Your task to perform on an android device: Check the weather Image 0: 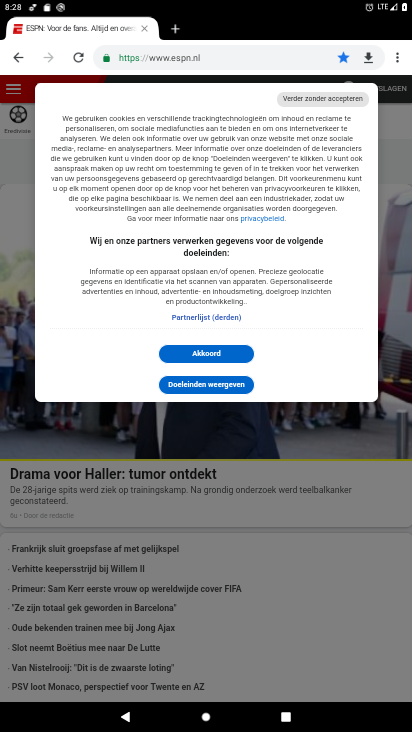
Step 0: press home button
Your task to perform on an android device: Check the weather Image 1: 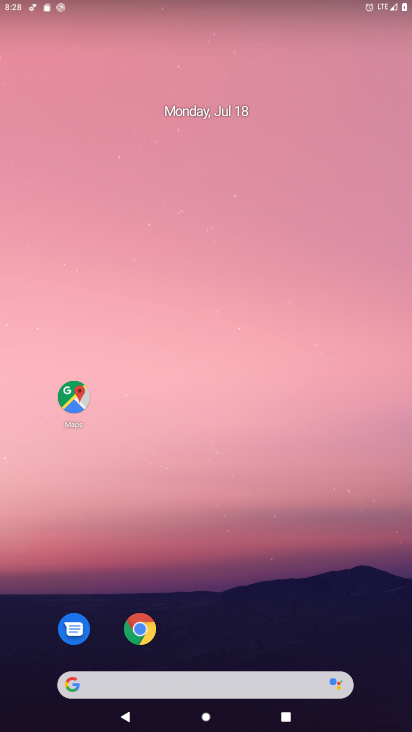
Step 1: click (180, 688)
Your task to perform on an android device: Check the weather Image 2: 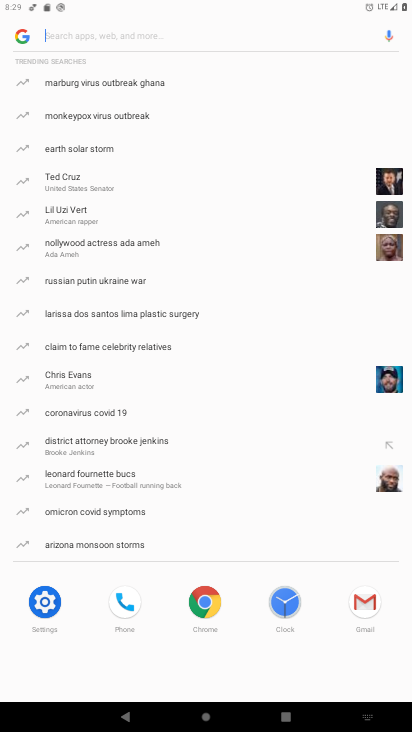
Step 2: type "weather"
Your task to perform on an android device: Check the weather Image 3: 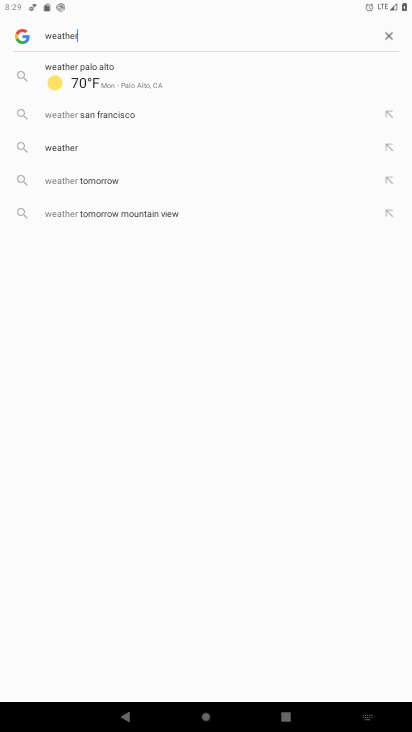
Step 3: click (79, 148)
Your task to perform on an android device: Check the weather Image 4: 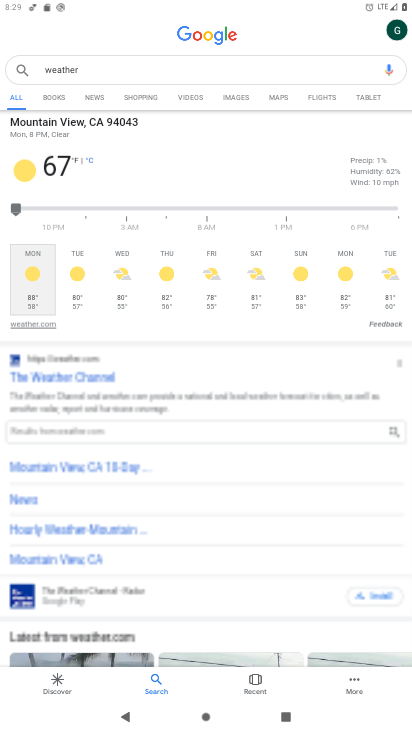
Step 4: task complete